Your task to perform on an android device: turn on airplane mode Image 0: 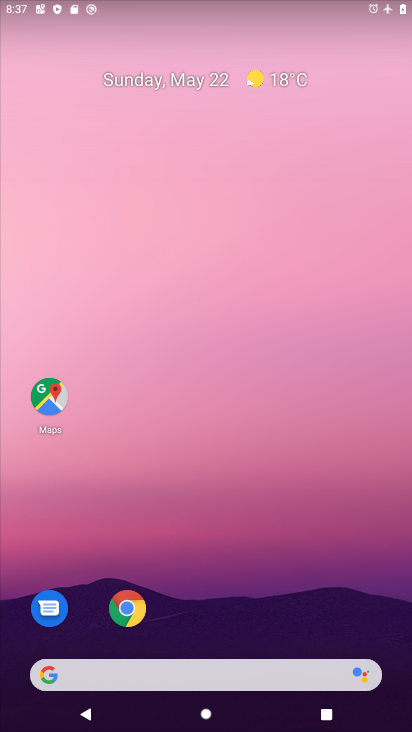
Step 0: drag from (231, 716) to (229, 130)
Your task to perform on an android device: turn on airplane mode Image 1: 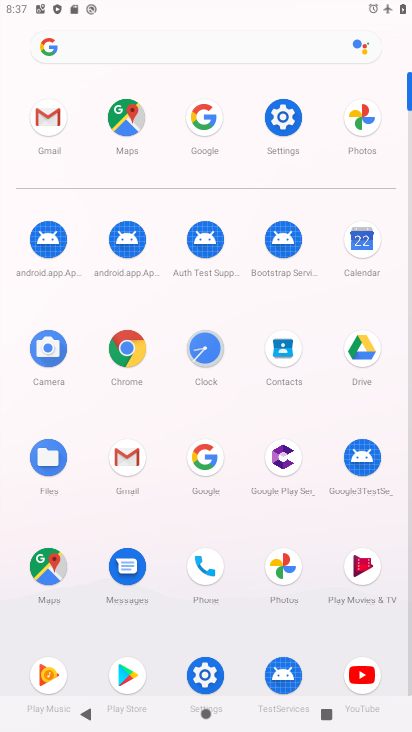
Step 1: click (286, 114)
Your task to perform on an android device: turn on airplane mode Image 2: 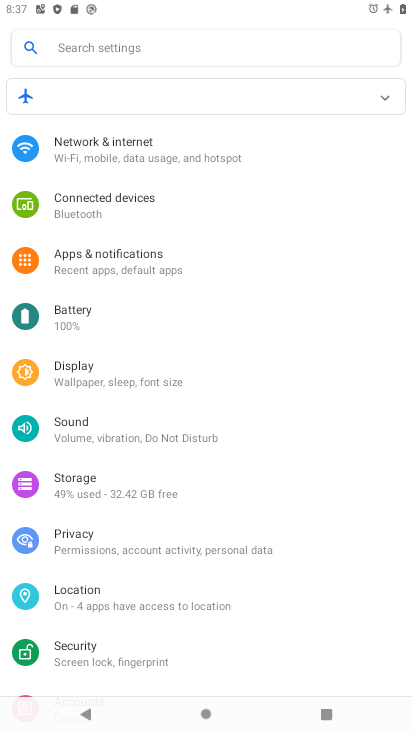
Step 2: click (94, 149)
Your task to perform on an android device: turn on airplane mode Image 3: 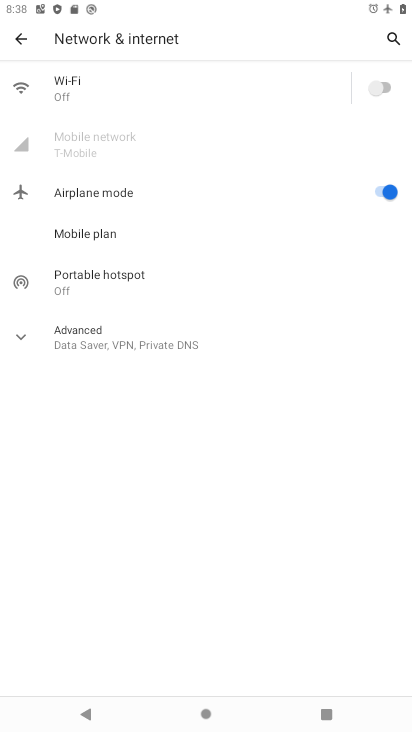
Step 3: task complete